Your task to perform on an android device: turn on bluetooth scan Image 0: 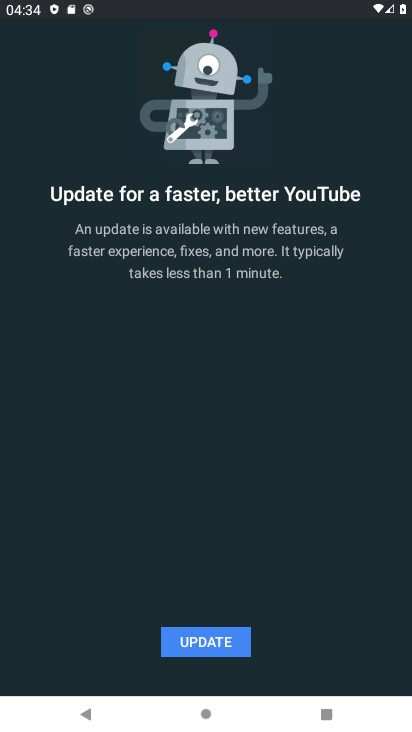
Step 0: press back button
Your task to perform on an android device: turn on bluetooth scan Image 1: 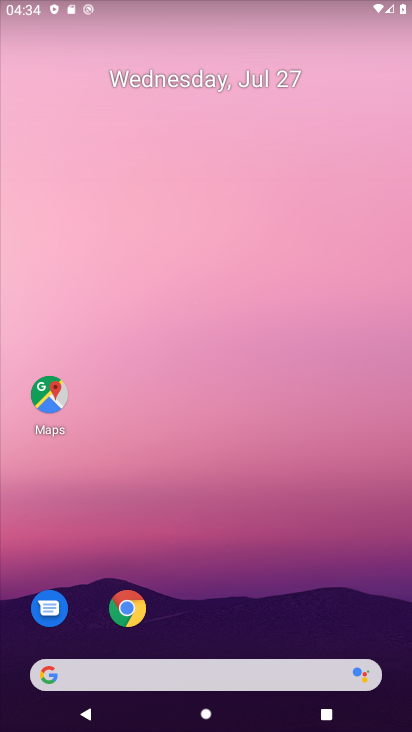
Step 1: drag from (276, 457) to (177, 136)
Your task to perform on an android device: turn on bluetooth scan Image 2: 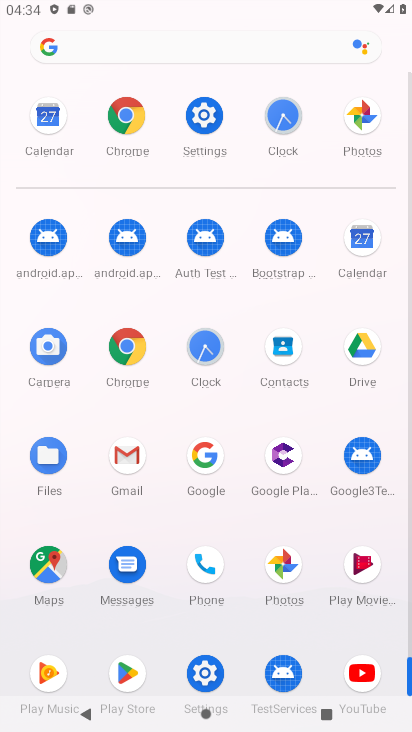
Step 2: click (206, 116)
Your task to perform on an android device: turn on bluetooth scan Image 3: 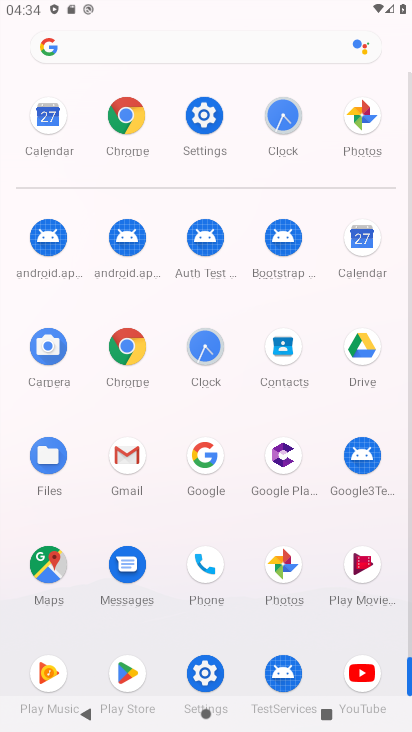
Step 3: click (206, 116)
Your task to perform on an android device: turn on bluetooth scan Image 4: 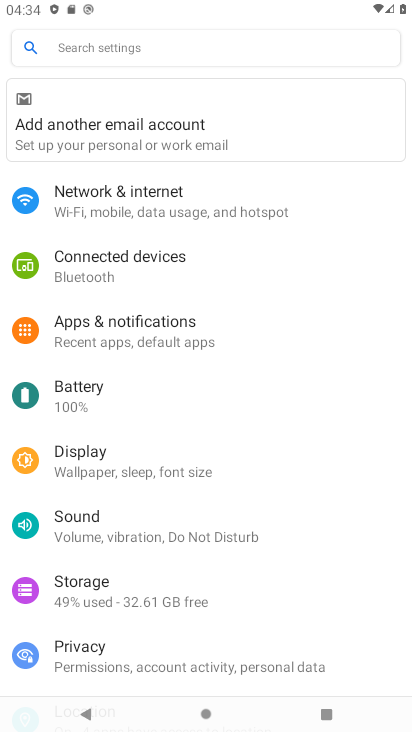
Step 4: drag from (103, 543) to (119, 185)
Your task to perform on an android device: turn on bluetooth scan Image 5: 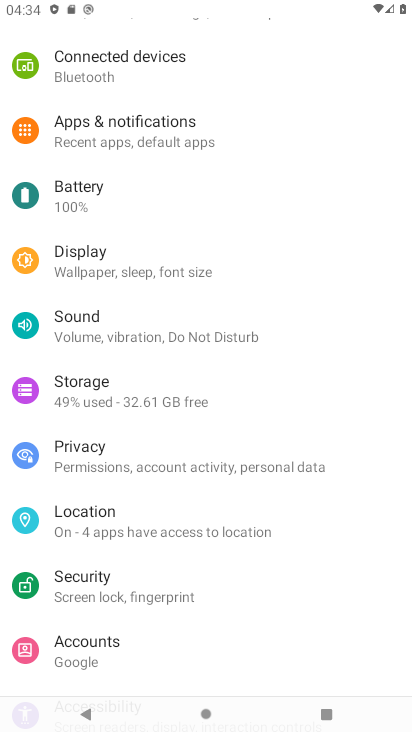
Step 5: drag from (158, 575) to (161, 334)
Your task to perform on an android device: turn on bluetooth scan Image 6: 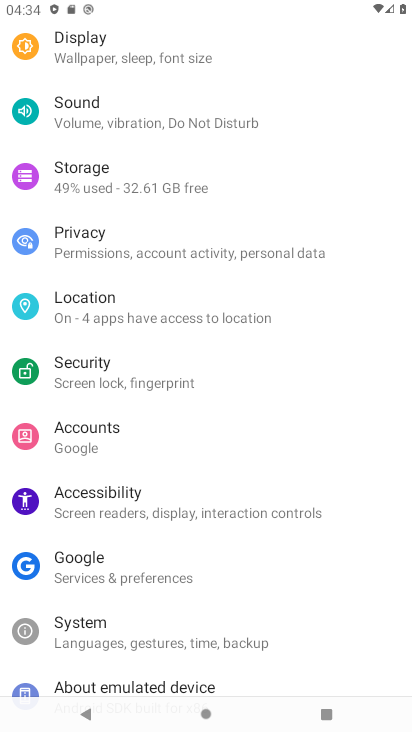
Step 6: drag from (207, 531) to (196, 218)
Your task to perform on an android device: turn on bluetooth scan Image 7: 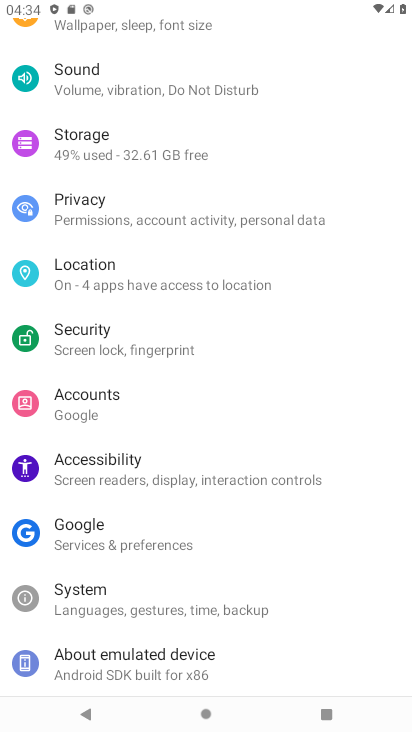
Step 7: drag from (74, 235) to (124, 408)
Your task to perform on an android device: turn on bluetooth scan Image 8: 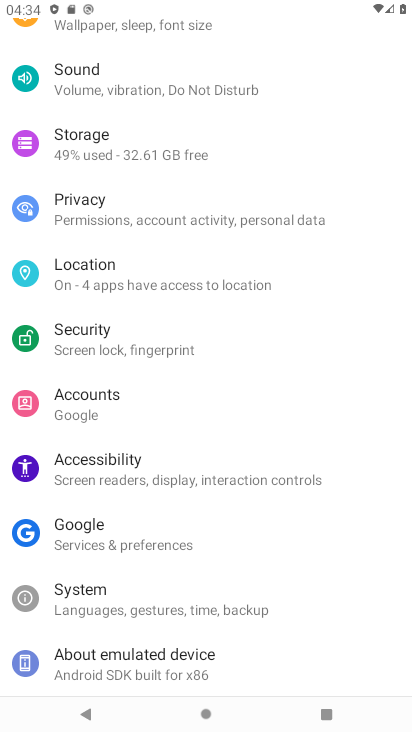
Step 8: drag from (119, 196) to (150, 368)
Your task to perform on an android device: turn on bluetooth scan Image 9: 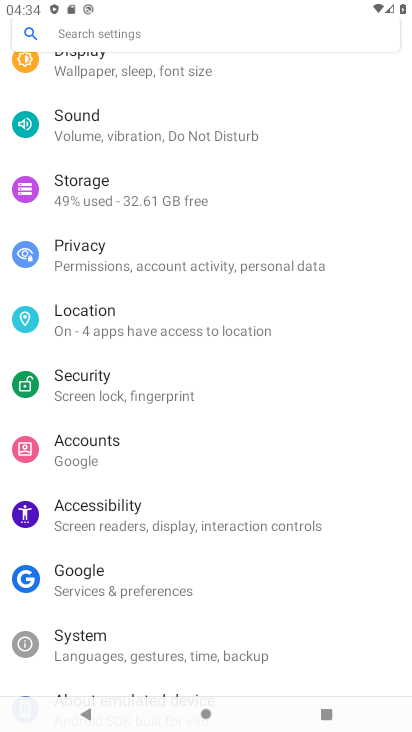
Step 9: drag from (111, 275) to (133, 495)
Your task to perform on an android device: turn on bluetooth scan Image 10: 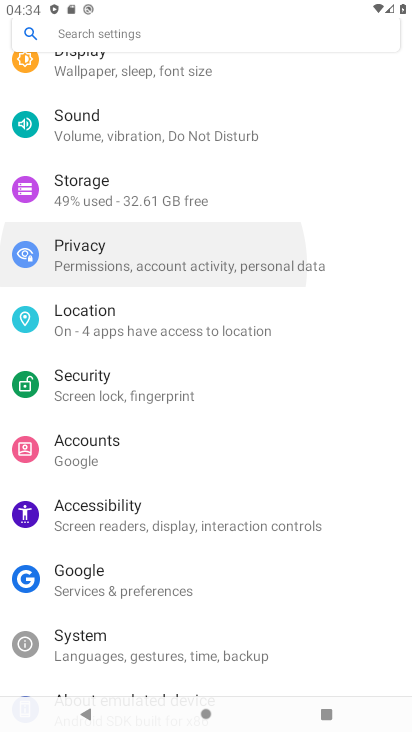
Step 10: click (90, 400)
Your task to perform on an android device: turn on bluetooth scan Image 11: 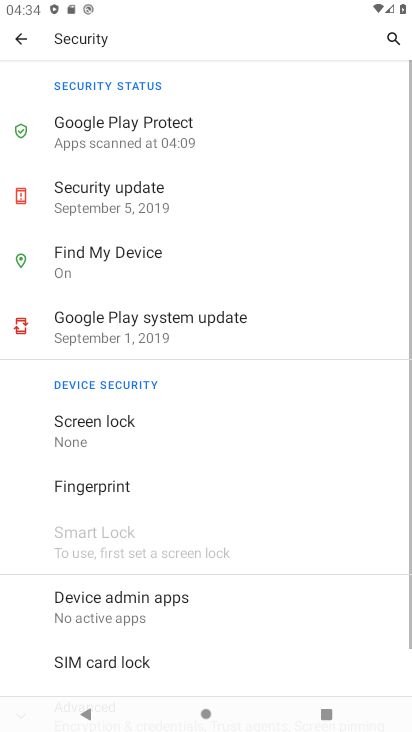
Step 11: click (12, 25)
Your task to perform on an android device: turn on bluetooth scan Image 12: 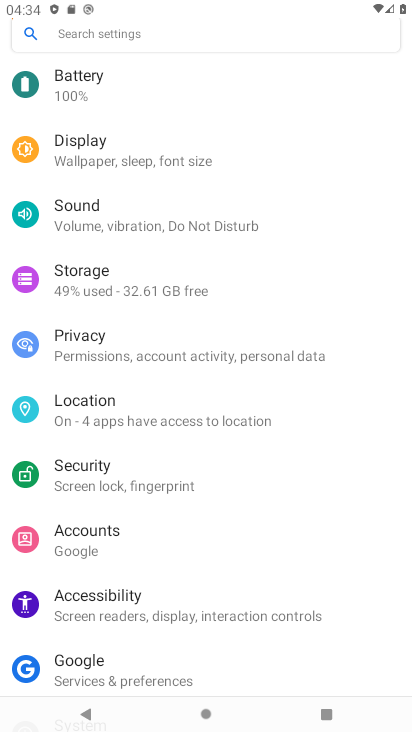
Step 12: drag from (112, 609) to (57, 217)
Your task to perform on an android device: turn on bluetooth scan Image 13: 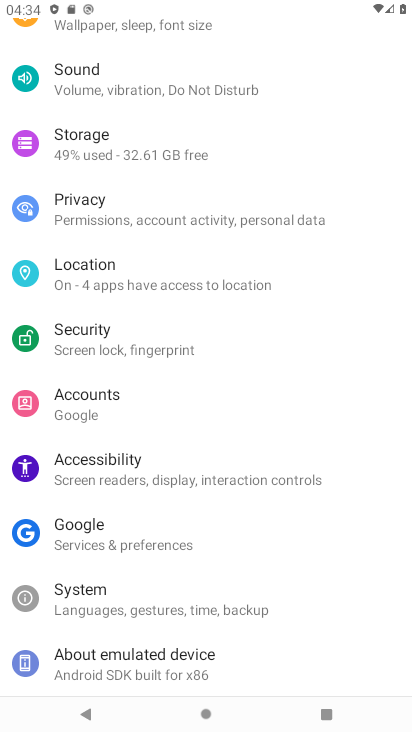
Step 13: drag from (143, 488) to (139, 290)
Your task to perform on an android device: turn on bluetooth scan Image 14: 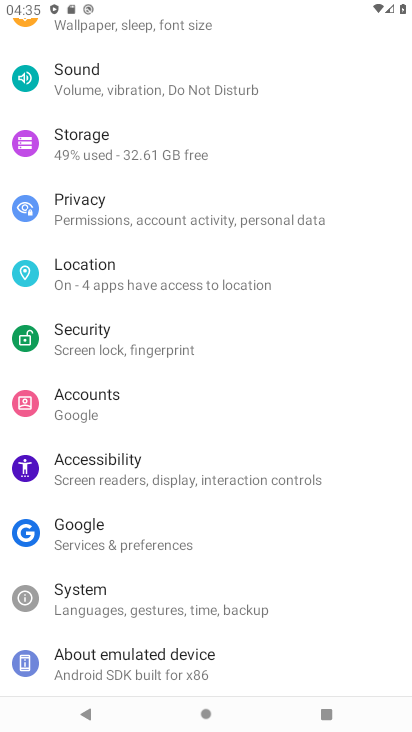
Step 14: click (90, 264)
Your task to perform on an android device: turn on bluetooth scan Image 15: 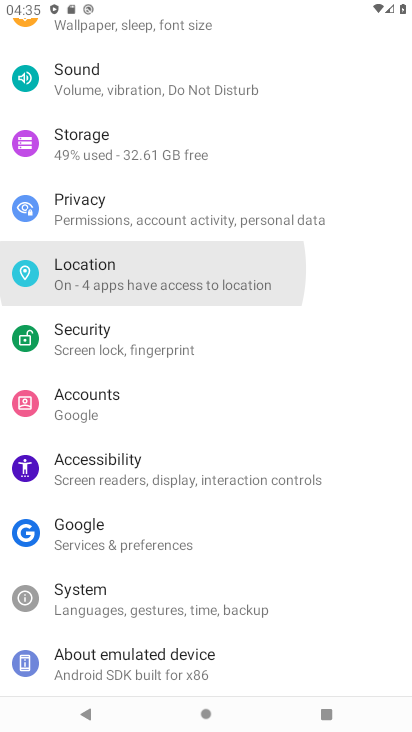
Step 15: click (84, 270)
Your task to perform on an android device: turn on bluetooth scan Image 16: 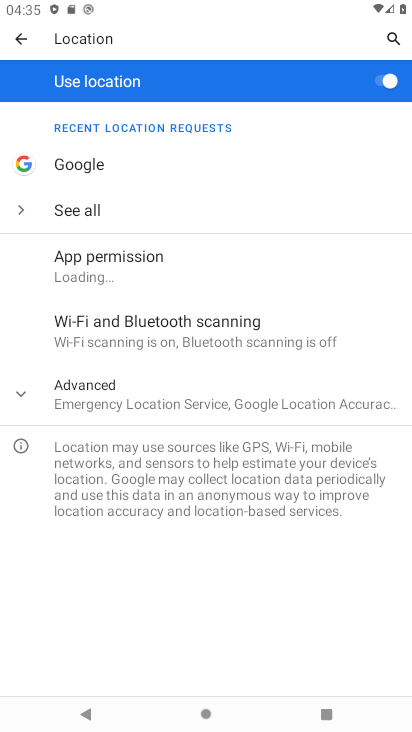
Step 16: click (81, 254)
Your task to perform on an android device: turn on bluetooth scan Image 17: 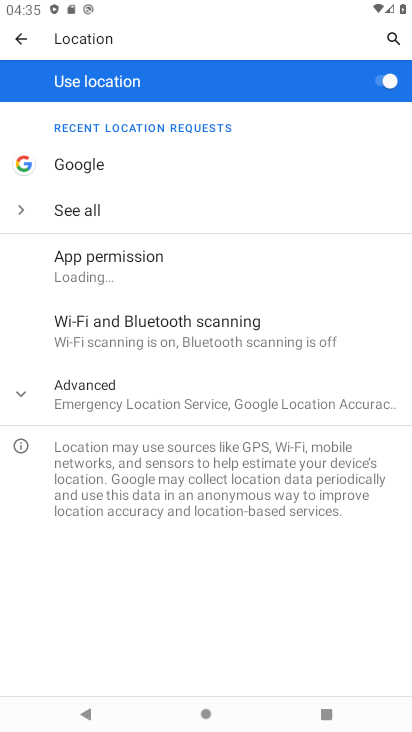
Step 17: click (82, 254)
Your task to perform on an android device: turn on bluetooth scan Image 18: 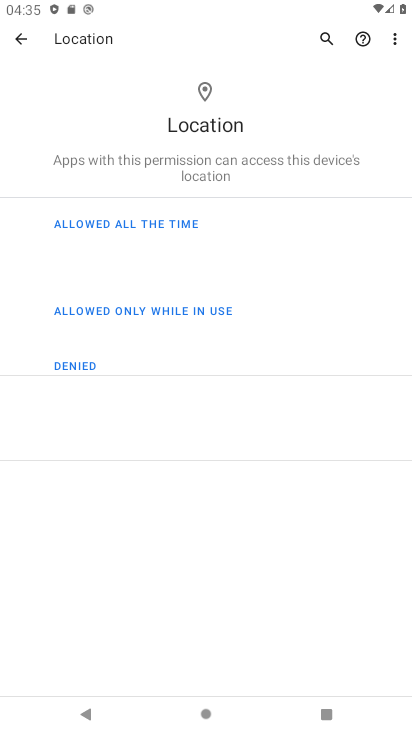
Step 18: click (24, 37)
Your task to perform on an android device: turn on bluetooth scan Image 19: 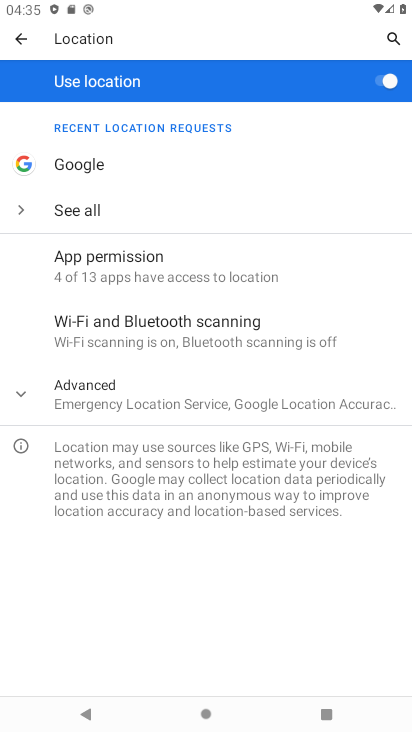
Step 19: click (143, 318)
Your task to perform on an android device: turn on bluetooth scan Image 20: 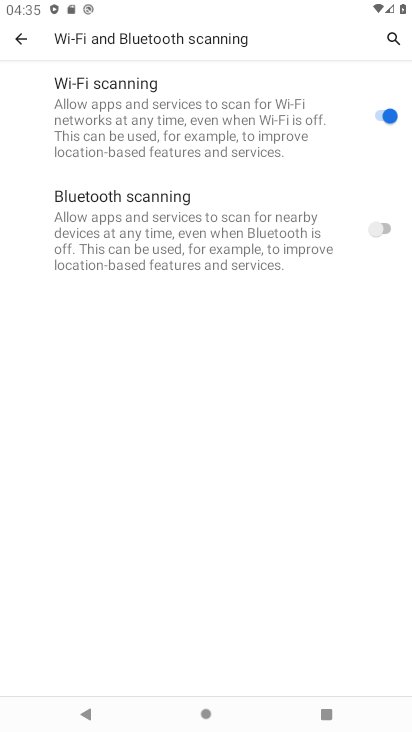
Step 20: click (379, 231)
Your task to perform on an android device: turn on bluetooth scan Image 21: 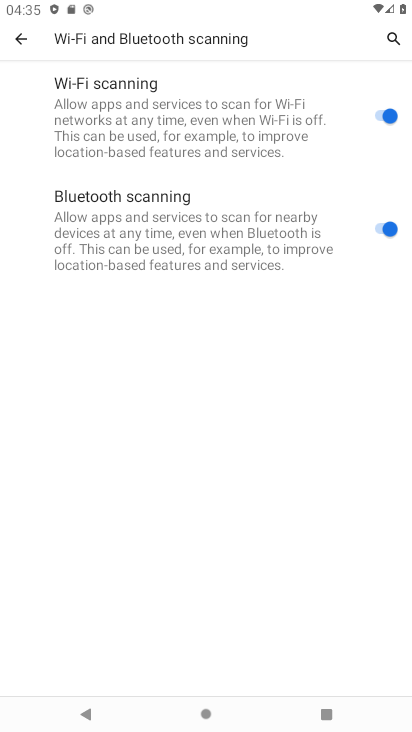
Step 21: task complete